Your task to perform on an android device: toggle javascript in the chrome app Image 0: 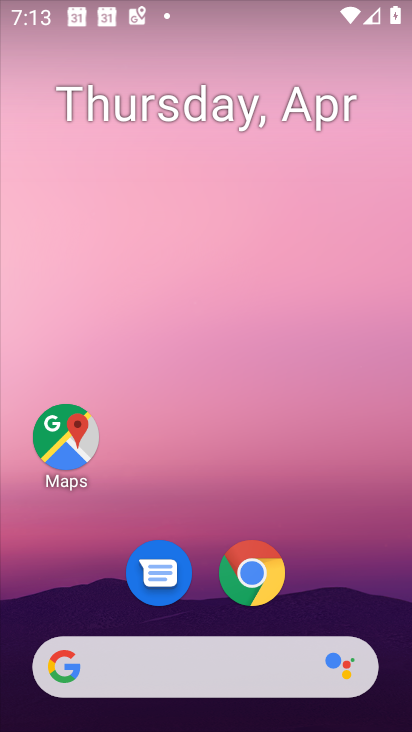
Step 0: click (242, 577)
Your task to perform on an android device: toggle javascript in the chrome app Image 1: 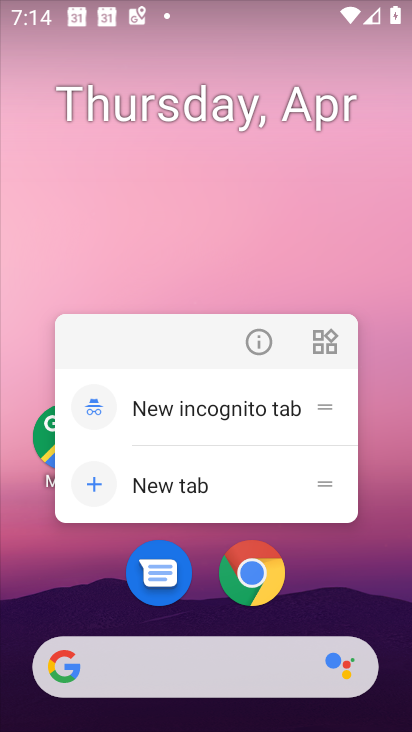
Step 1: click (242, 566)
Your task to perform on an android device: toggle javascript in the chrome app Image 2: 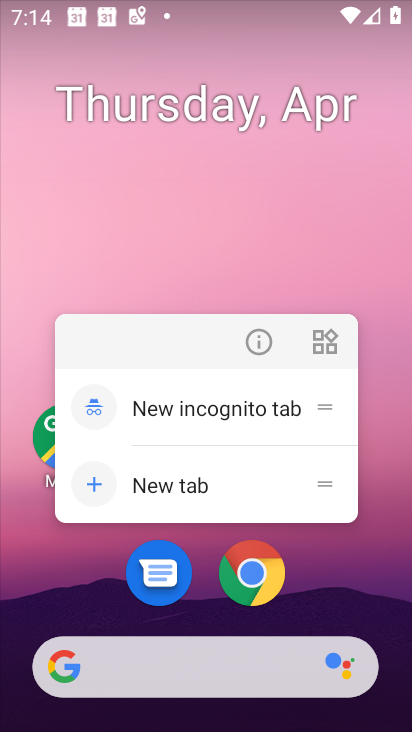
Step 2: click (242, 566)
Your task to perform on an android device: toggle javascript in the chrome app Image 3: 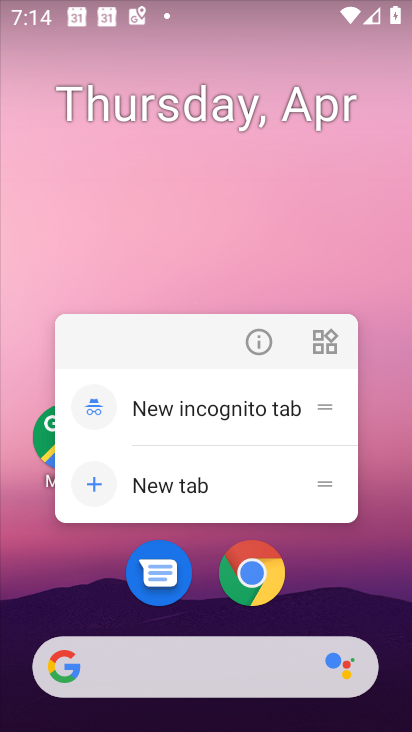
Step 3: click (242, 566)
Your task to perform on an android device: toggle javascript in the chrome app Image 4: 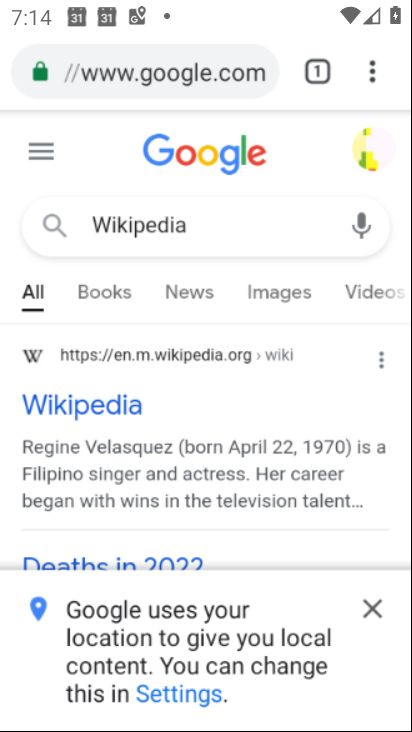
Step 4: click (242, 566)
Your task to perform on an android device: toggle javascript in the chrome app Image 5: 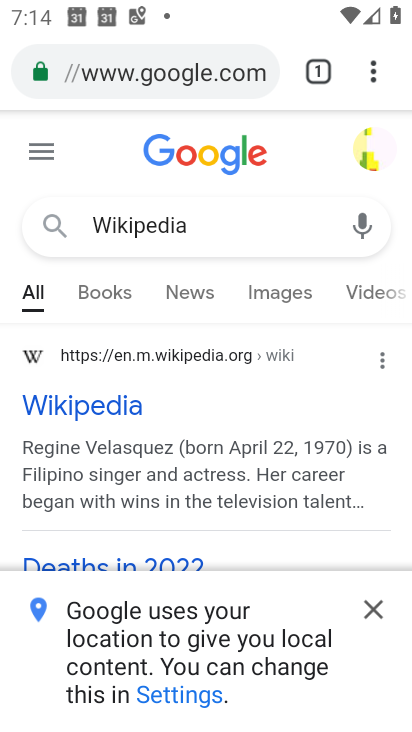
Step 5: click (276, 69)
Your task to perform on an android device: toggle javascript in the chrome app Image 6: 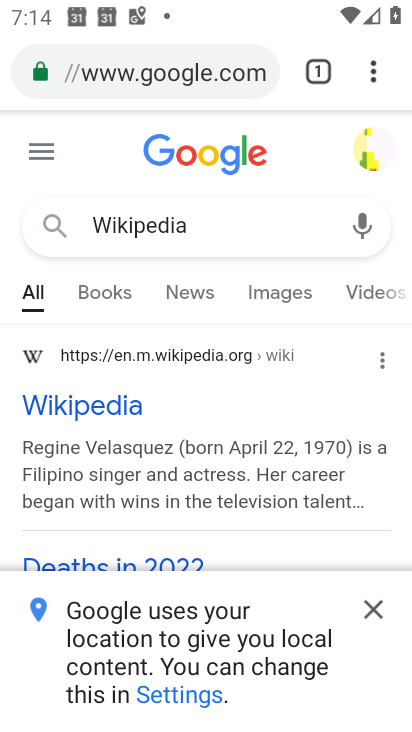
Step 6: click (368, 64)
Your task to perform on an android device: toggle javascript in the chrome app Image 7: 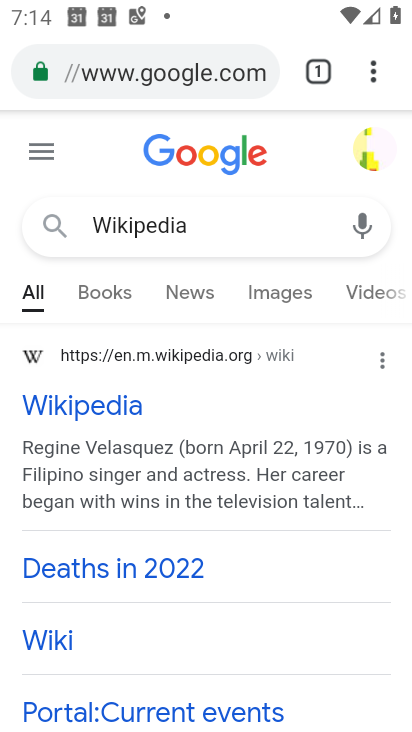
Step 7: click (370, 67)
Your task to perform on an android device: toggle javascript in the chrome app Image 8: 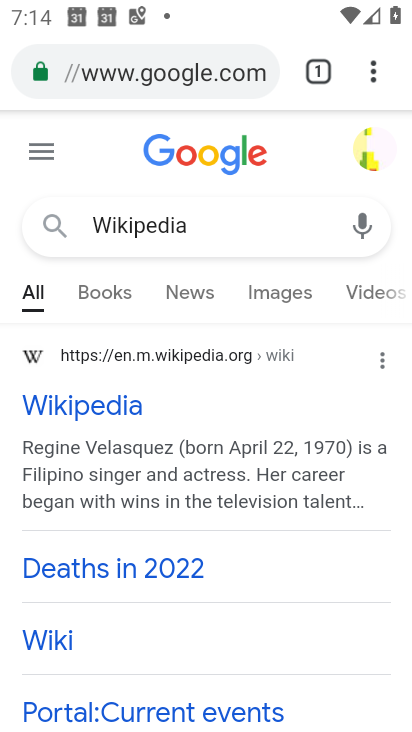
Step 8: click (370, 67)
Your task to perform on an android device: toggle javascript in the chrome app Image 9: 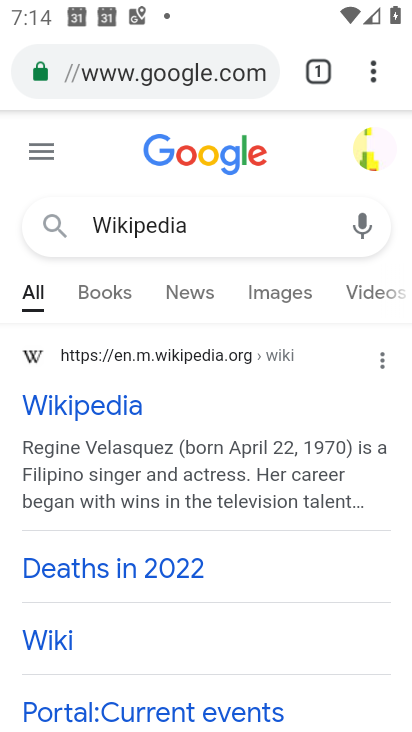
Step 9: click (370, 67)
Your task to perform on an android device: toggle javascript in the chrome app Image 10: 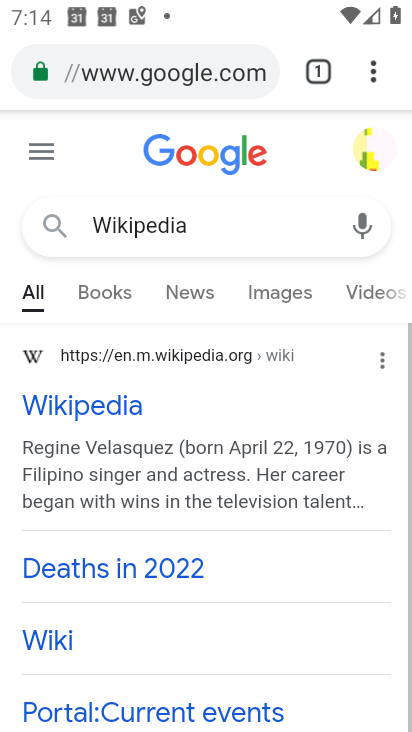
Step 10: drag from (371, 67) to (379, 110)
Your task to perform on an android device: toggle javascript in the chrome app Image 11: 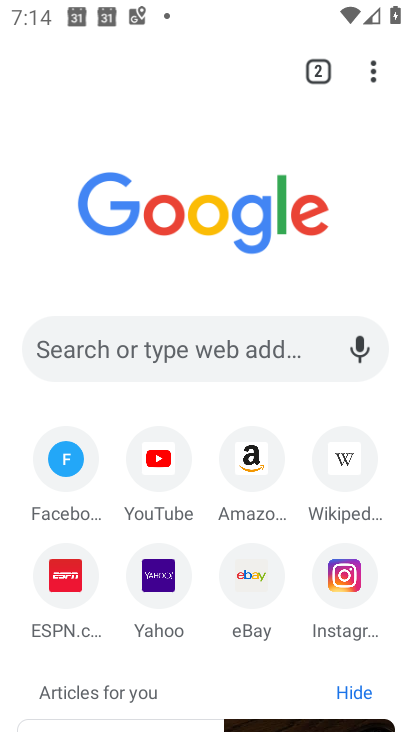
Step 11: click (373, 116)
Your task to perform on an android device: toggle javascript in the chrome app Image 12: 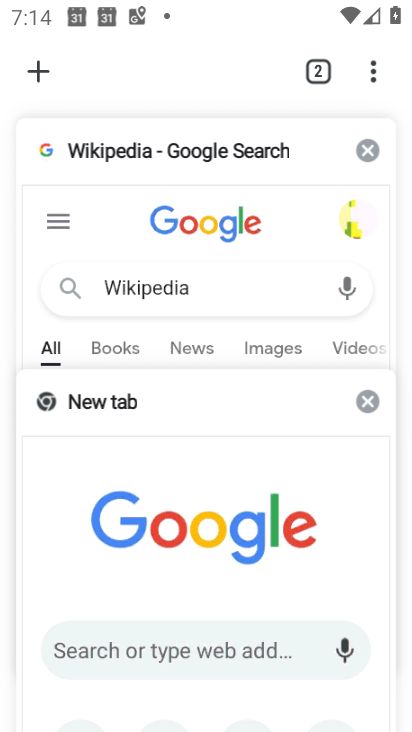
Step 12: drag from (372, 66) to (372, 226)
Your task to perform on an android device: toggle javascript in the chrome app Image 13: 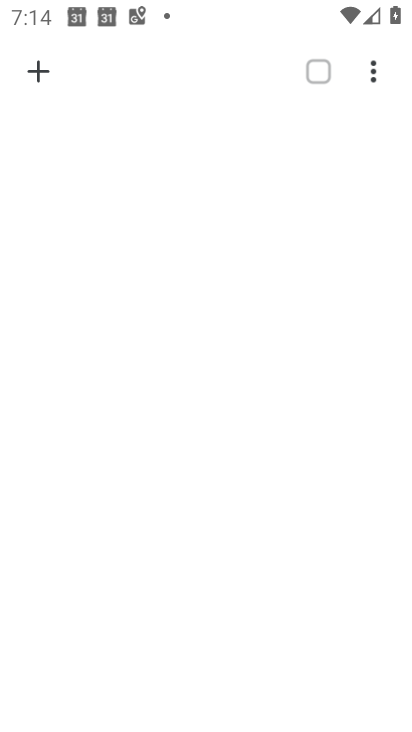
Step 13: click (28, 72)
Your task to perform on an android device: toggle javascript in the chrome app Image 14: 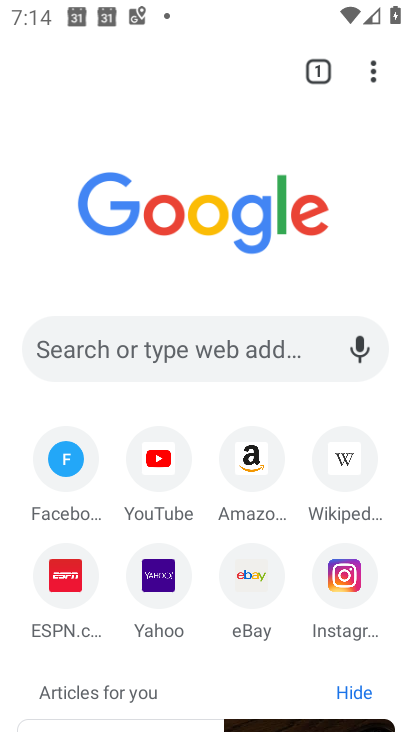
Step 14: click (368, 65)
Your task to perform on an android device: toggle javascript in the chrome app Image 15: 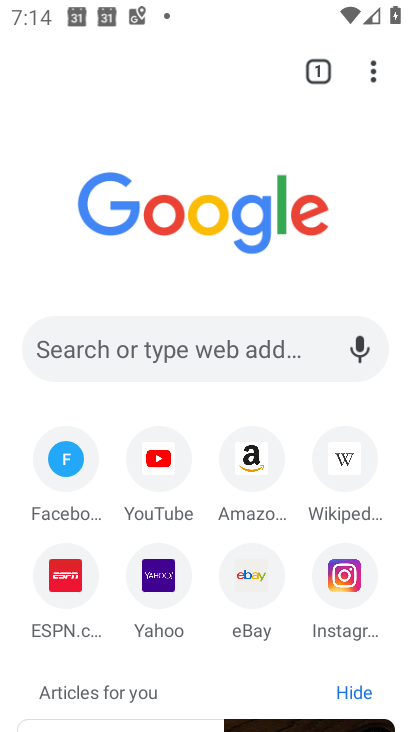
Step 15: click (368, 65)
Your task to perform on an android device: toggle javascript in the chrome app Image 16: 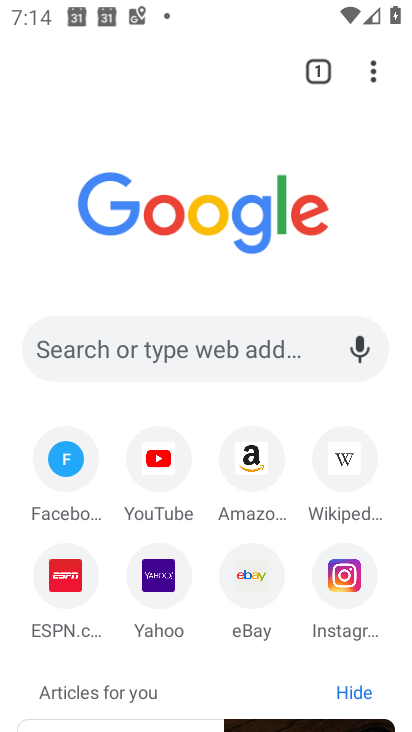
Step 16: click (368, 65)
Your task to perform on an android device: toggle javascript in the chrome app Image 17: 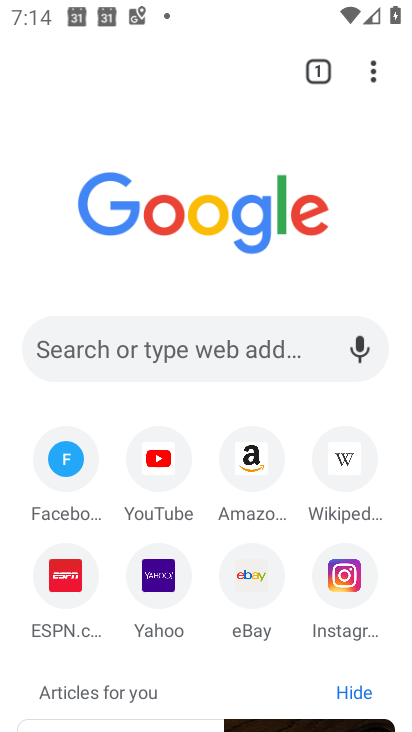
Step 17: click (368, 65)
Your task to perform on an android device: toggle javascript in the chrome app Image 18: 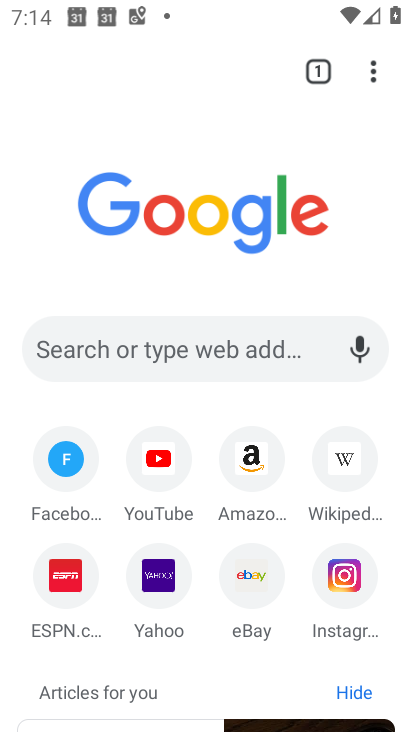
Step 18: click (368, 65)
Your task to perform on an android device: toggle javascript in the chrome app Image 19: 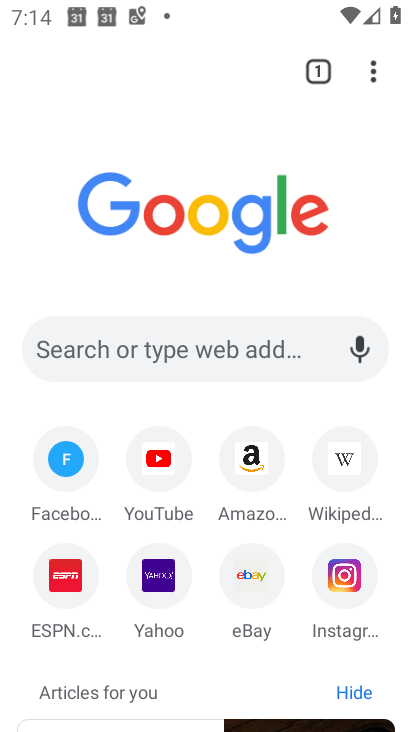
Step 19: drag from (374, 59) to (365, 165)
Your task to perform on an android device: toggle javascript in the chrome app Image 20: 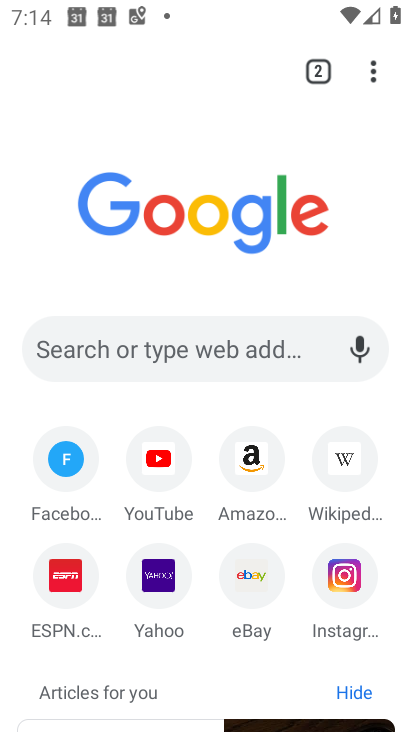
Step 20: drag from (371, 59) to (375, 194)
Your task to perform on an android device: toggle javascript in the chrome app Image 21: 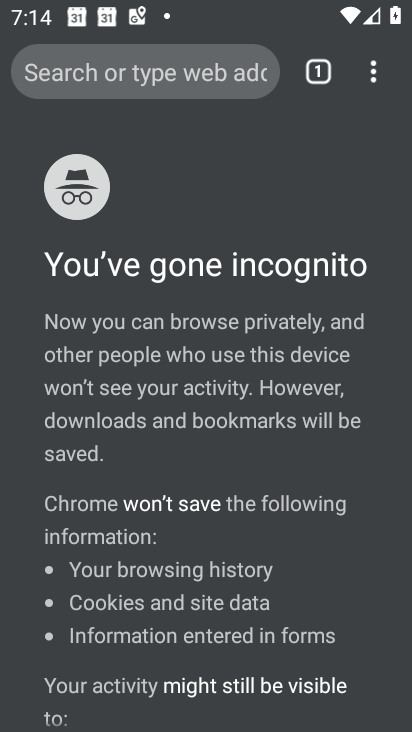
Step 21: drag from (374, 65) to (376, 111)
Your task to perform on an android device: toggle javascript in the chrome app Image 22: 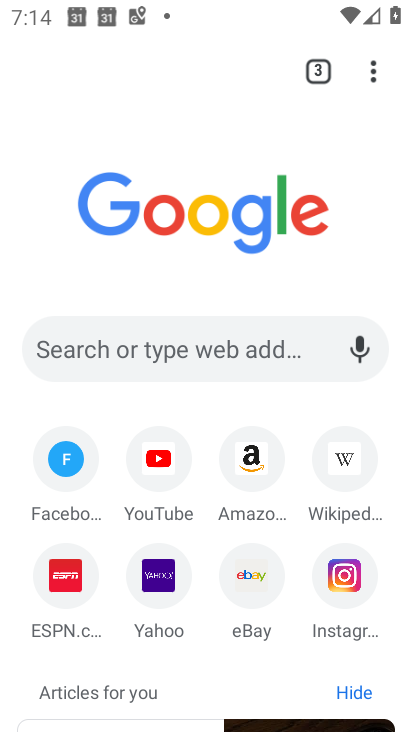
Step 22: click (322, 71)
Your task to perform on an android device: toggle javascript in the chrome app Image 23: 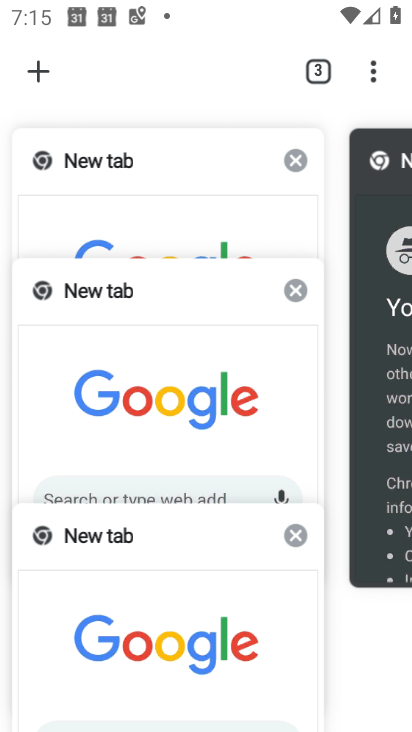
Step 23: drag from (367, 224) to (172, 252)
Your task to perform on an android device: toggle javascript in the chrome app Image 24: 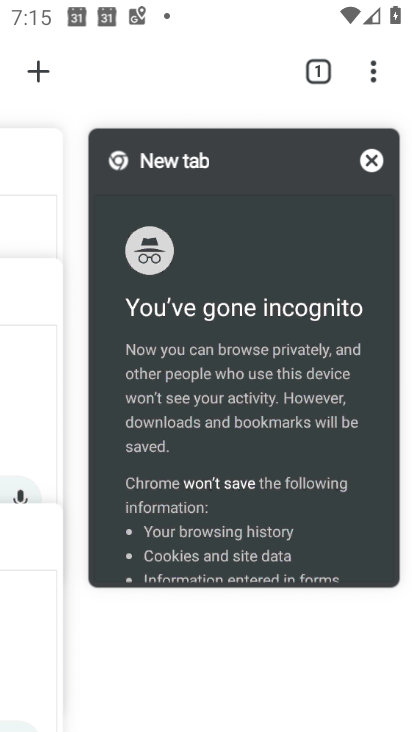
Step 24: click (373, 164)
Your task to perform on an android device: toggle javascript in the chrome app Image 25: 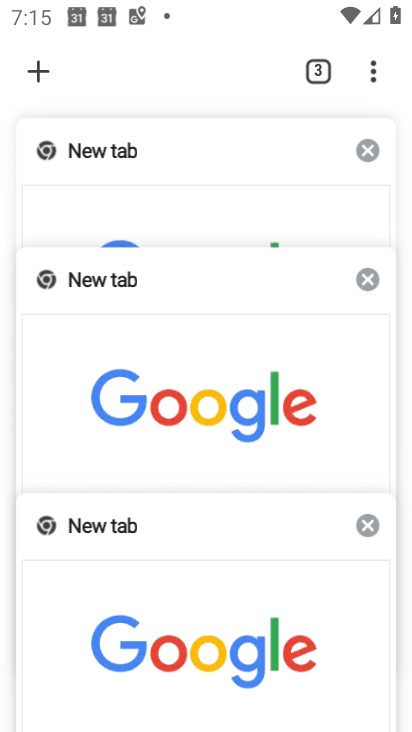
Step 25: click (363, 520)
Your task to perform on an android device: toggle javascript in the chrome app Image 26: 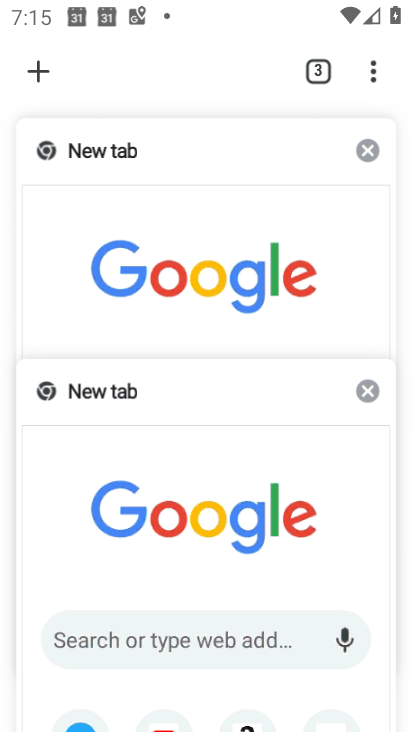
Step 26: click (362, 280)
Your task to perform on an android device: toggle javascript in the chrome app Image 27: 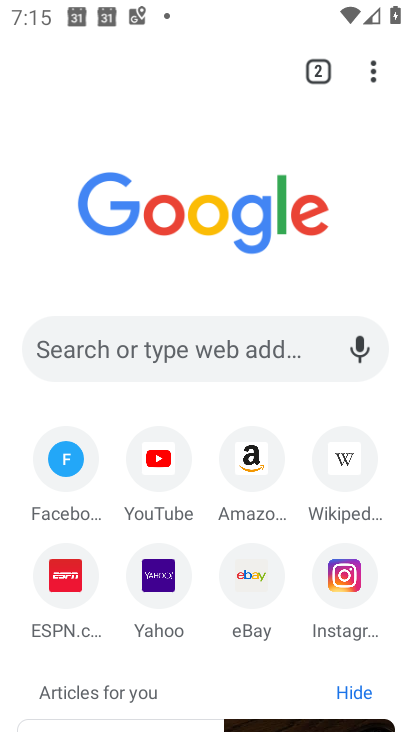
Step 27: click (242, 204)
Your task to perform on an android device: toggle javascript in the chrome app Image 28: 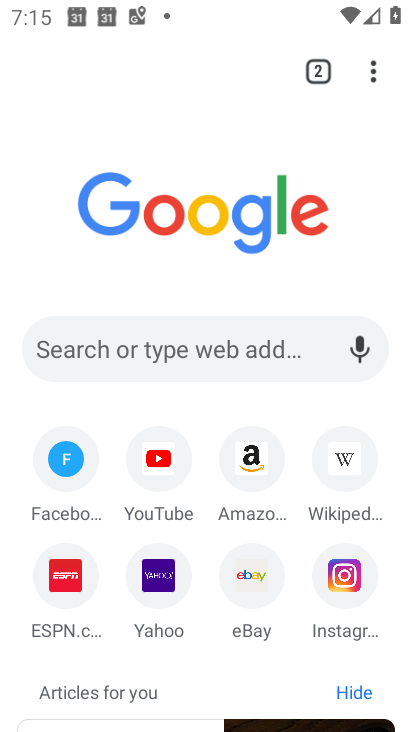
Step 28: click (367, 65)
Your task to perform on an android device: toggle javascript in the chrome app Image 29: 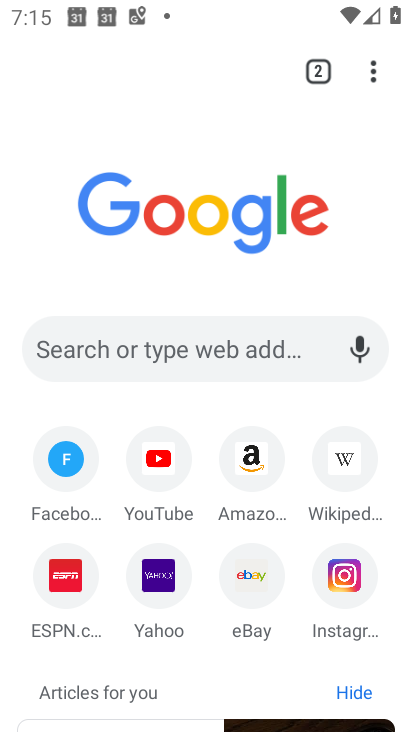
Step 29: click (367, 53)
Your task to perform on an android device: toggle javascript in the chrome app Image 30: 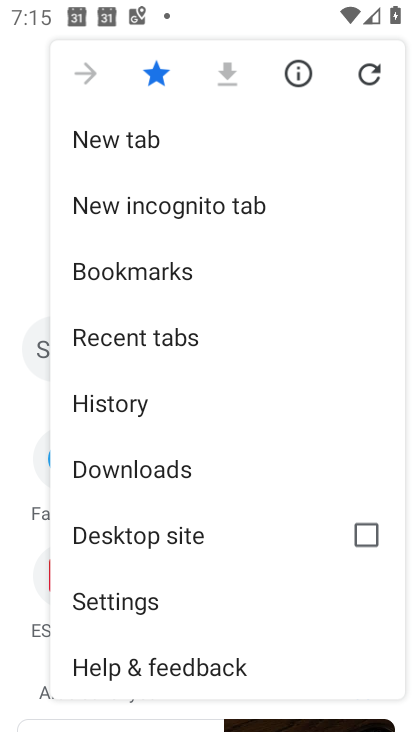
Step 30: click (132, 594)
Your task to perform on an android device: toggle javascript in the chrome app Image 31: 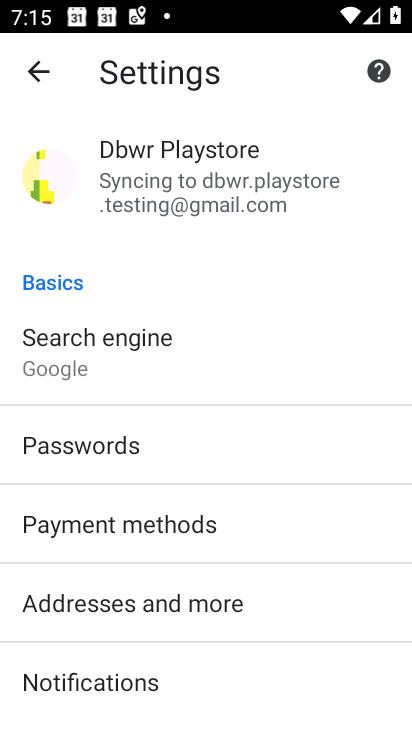
Step 31: drag from (311, 576) to (309, 330)
Your task to perform on an android device: toggle javascript in the chrome app Image 32: 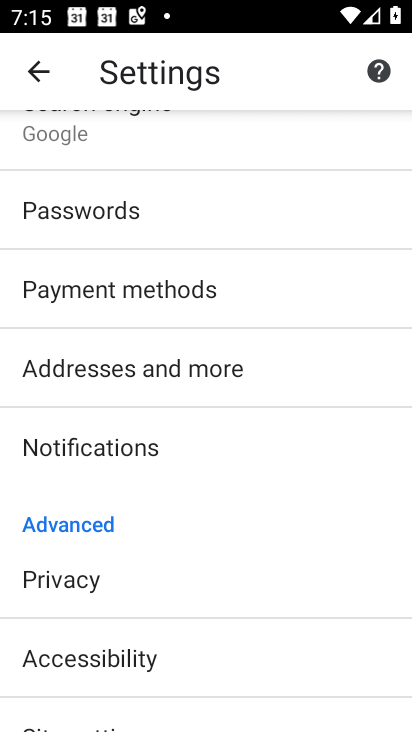
Step 32: drag from (249, 664) to (266, 350)
Your task to perform on an android device: toggle javascript in the chrome app Image 33: 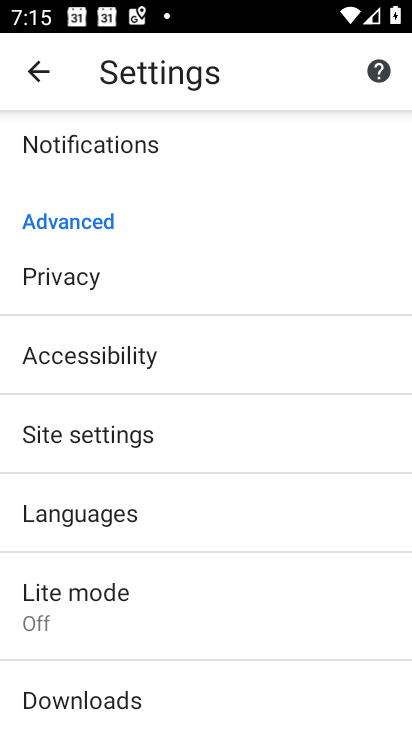
Step 33: drag from (272, 634) to (287, 352)
Your task to perform on an android device: toggle javascript in the chrome app Image 34: 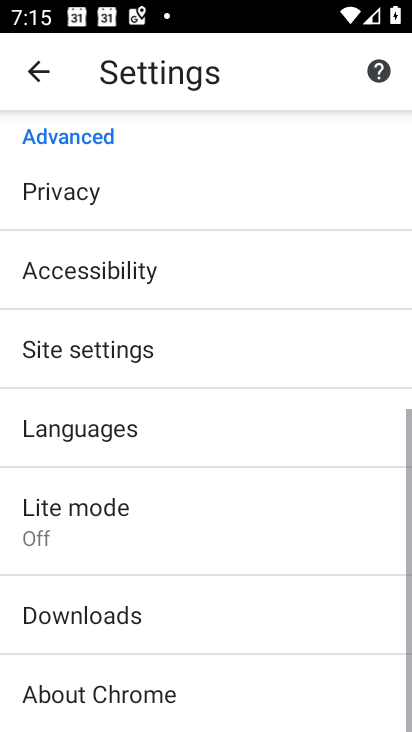
Step 34: drag from (277, 668) to (287, 336)
Your task to perform on an android device: toggle javascript in the chrome app Image 35: 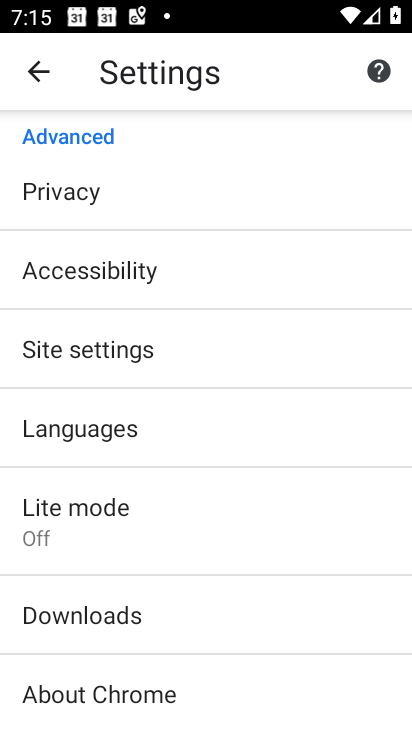
Step 35: click (66, 349)
Your task to perform on an android device: toggle javascript in the chrome app Image 36: 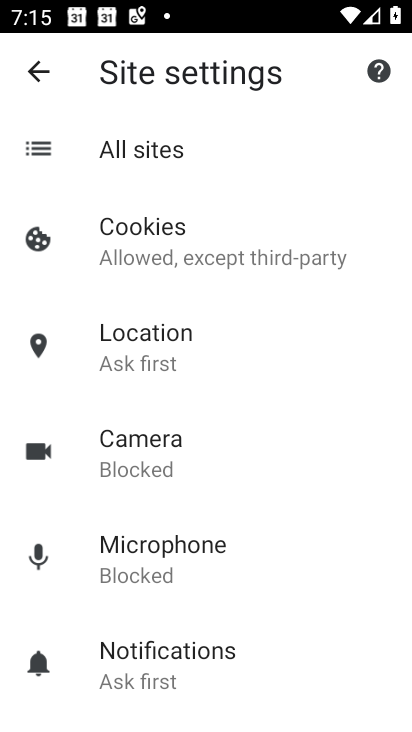
Step 36: drag from (272, 671) to (305, 320)
Your task to perform on an android device: toggle javascript in the chrome app Image 37: 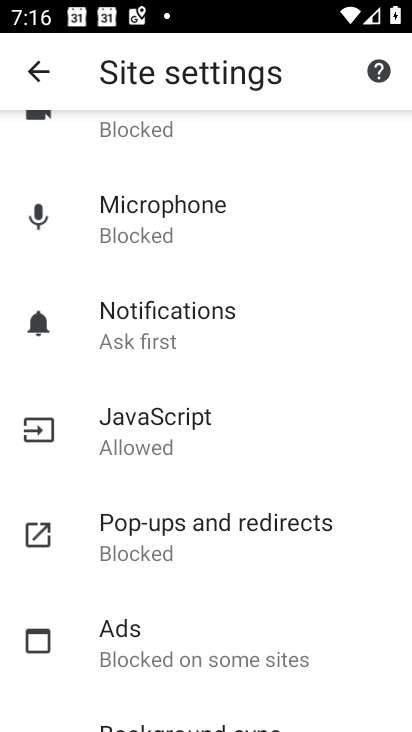
Step 37: click (142, 420)
Your task to perform on an android device: toggle javascript in the chrome app Image 38: 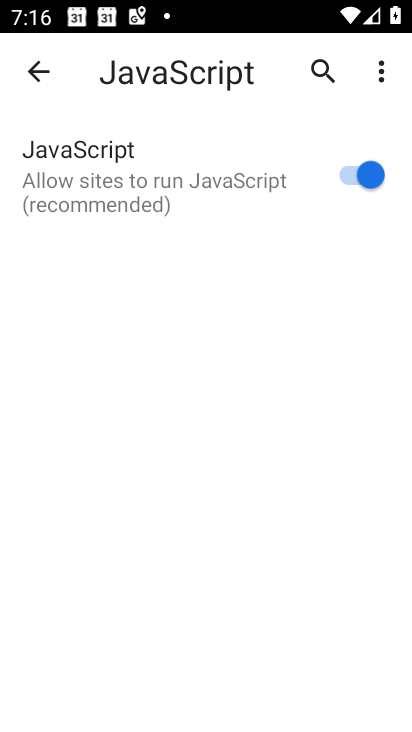
Step 38: click (344, 177)
Your task to perform on an android device: toggle javascript in the chrome app Image 39: 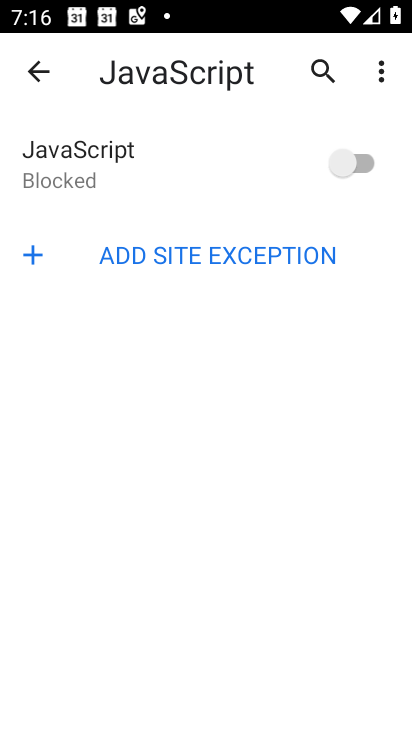
Step 39: task complete